Your task to perform on an android device: open wifi settings Image 0: 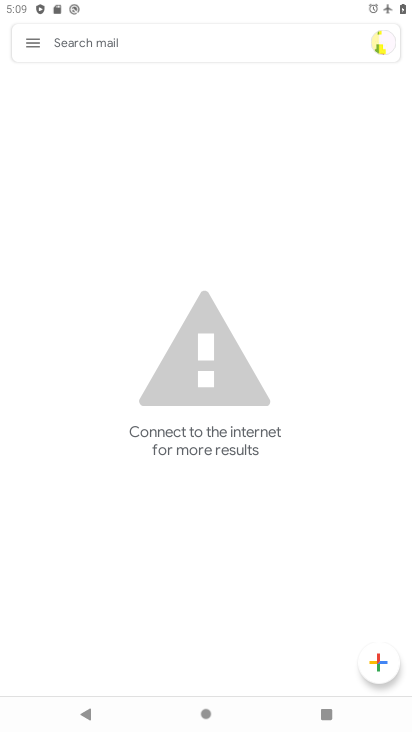
Step 0: click (205, 713)
Your task to perform on an android device: open wifi settings Image 1: 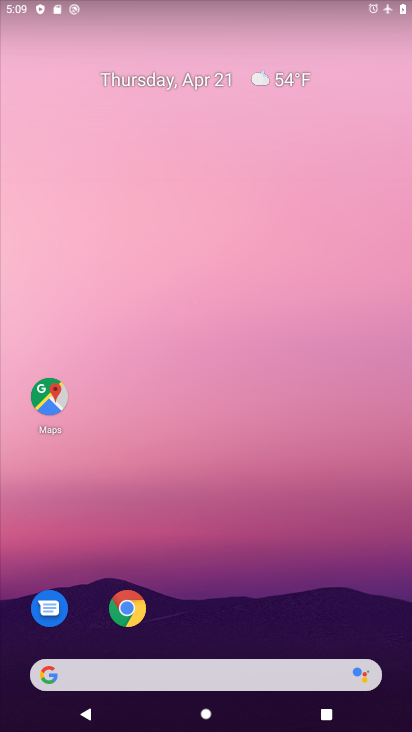
Step 1: drag from (186, 630) to (199, 139)
Your task to perform on an android device: open wifi settings Image 2: 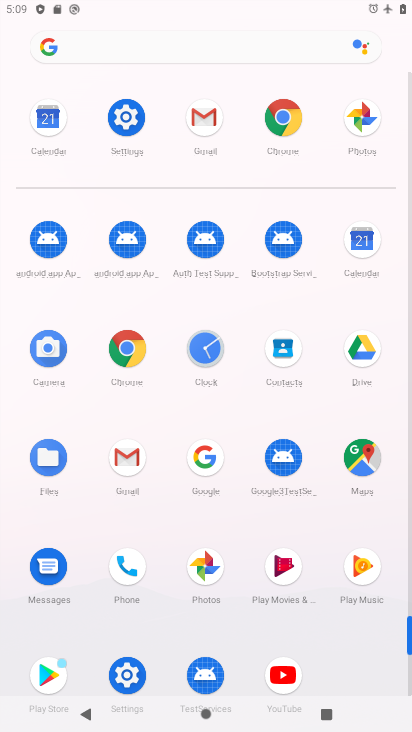
Step 2: click (125, 121)
Your task to perform on an android device: open wifi settings Image 3: 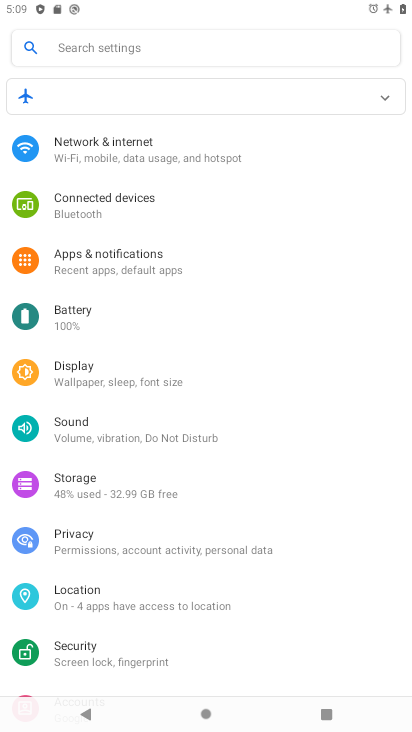
Step 3: click (131, 146)
Your task to perform on an android device: open wifi settings Image 4: 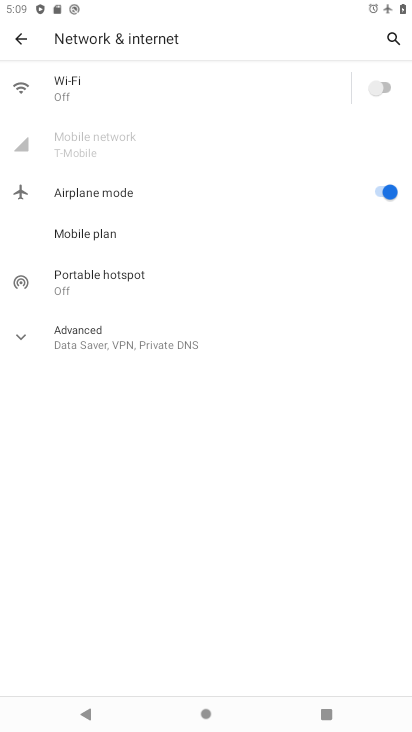
Step 4: click (131, 147)
Your task to perform on an android device: open wifi settings Image 5: 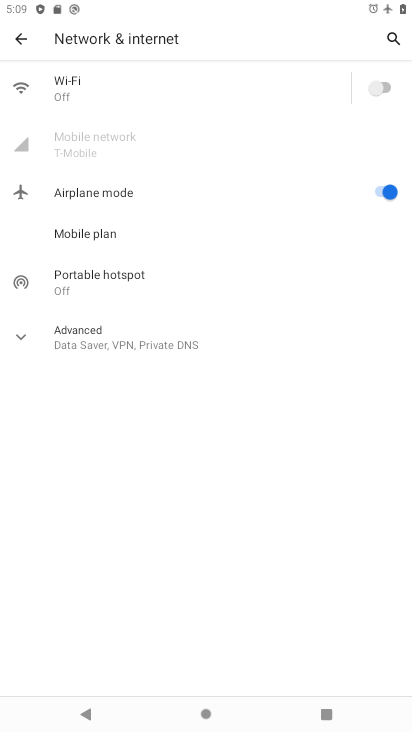
Step 5: click (222, 83)
Your task to perform on an android device: open wifi settings Image 6: 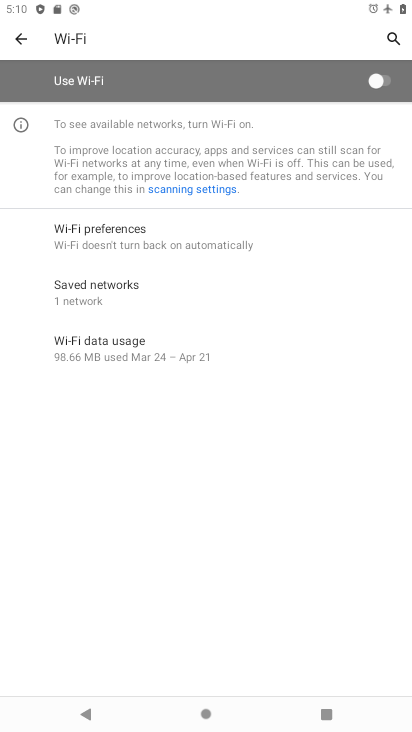
Step 6: task complete